Your task to perform on an android device: Do I have any events this weekend? Image 0: 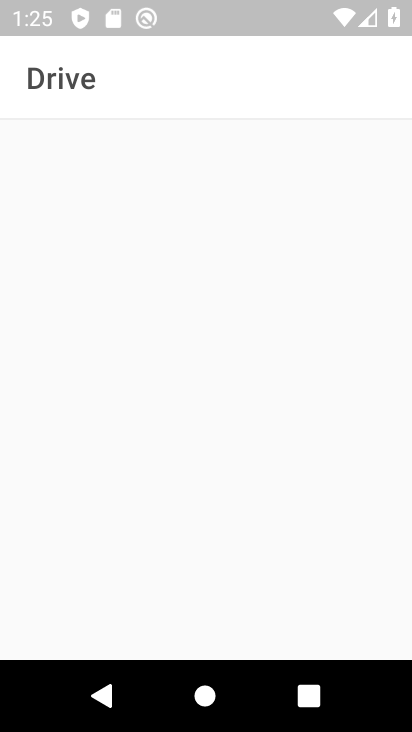
Step 0: press home button
Your task to perform on an android device: Do I have any events this weekend? Image 1: 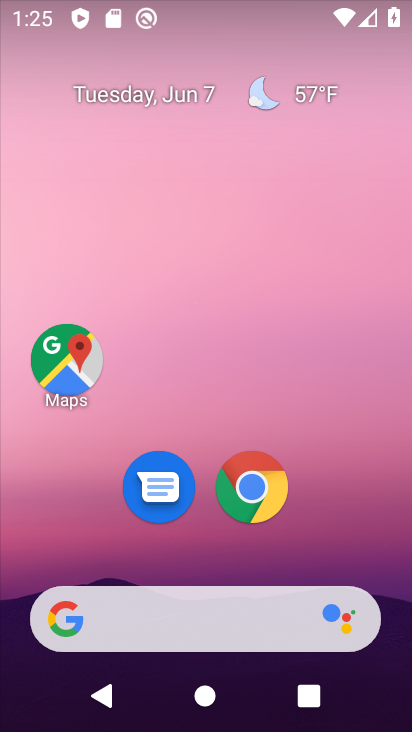
Step 1: drag from (342, 525) to (230, 99)
Your task to perform on an android device: Do I have any events this weekend? Image 2: 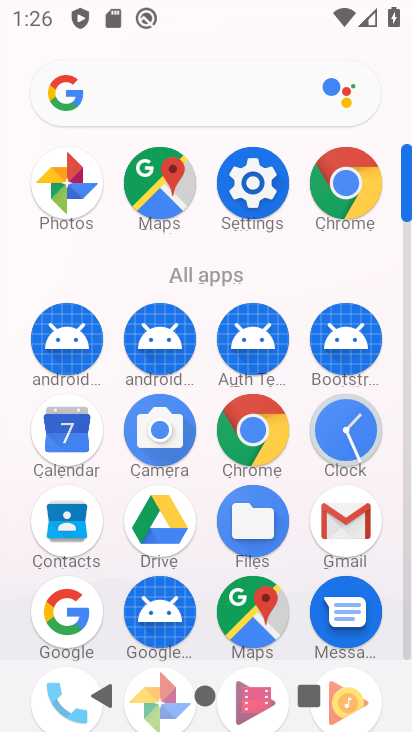
Step 2: click (67, 434)
Your task to perform on an android device: Do I have any events this weekend? Image 3: 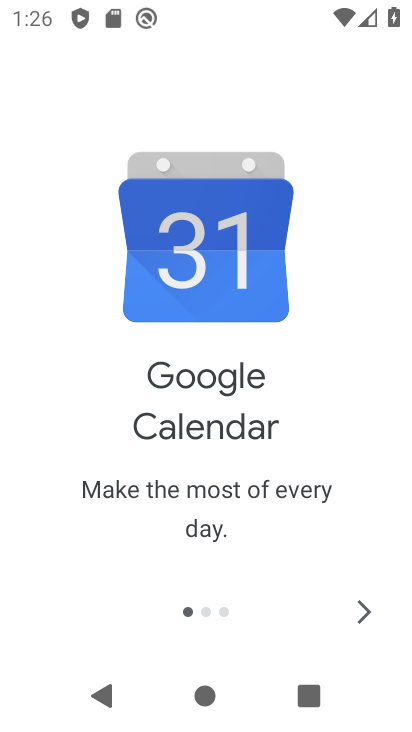
Step 3: click (368, 610)
Your task to perform on an android device: Do I have any events this weekend? Image 4: 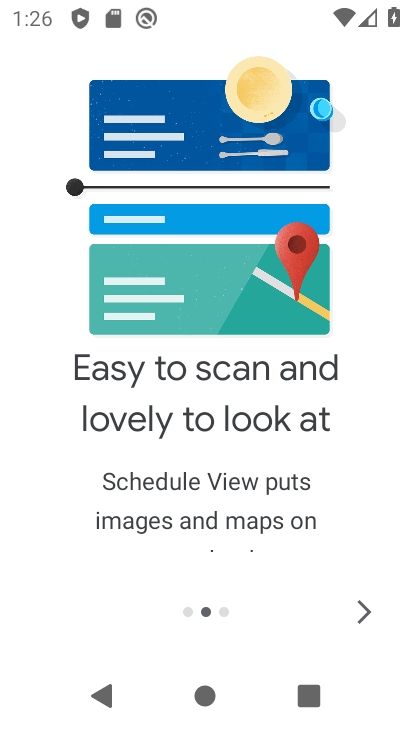
Step 4: click (368, 610)
Your task to perform on an android device: Do I have any events this weekend? Image 5: 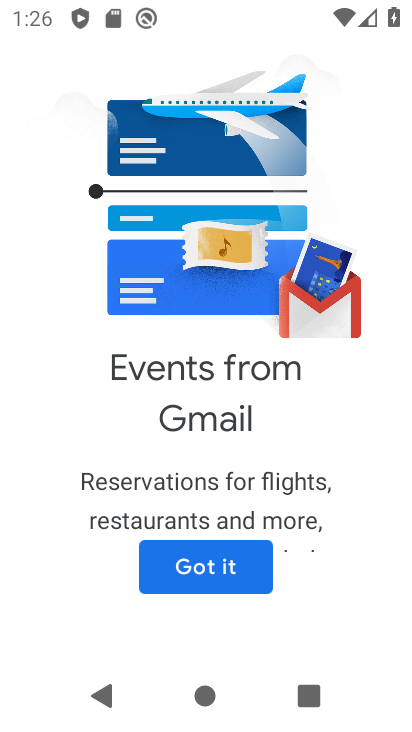
Step 5: click (213, 569)
Your task to perform on an android device: Do I have any events this weekend? Image 6: 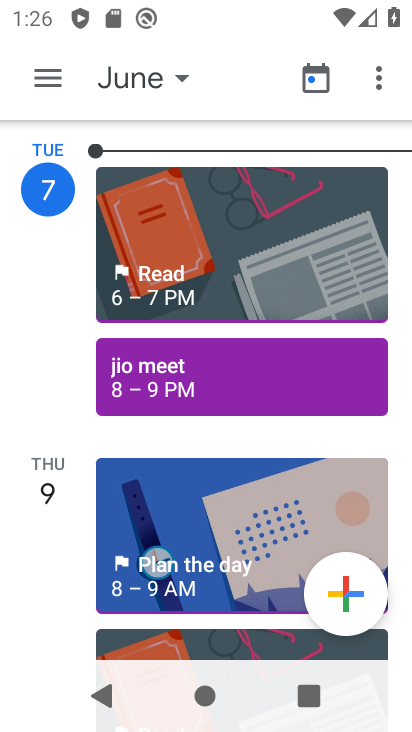
Step 6: click (180, 75)
Your task to perform on an android device: Do I have any events this weekend? Image 7: 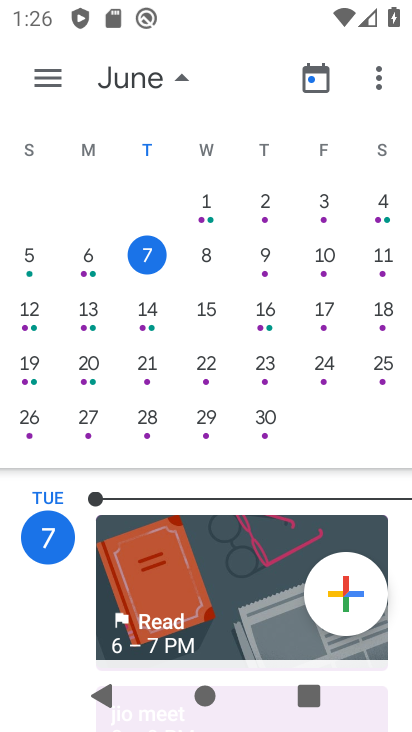
Step 7: click (381, 264)
Your task to perform on an android device: Do I have any events this weekend? Image 8: 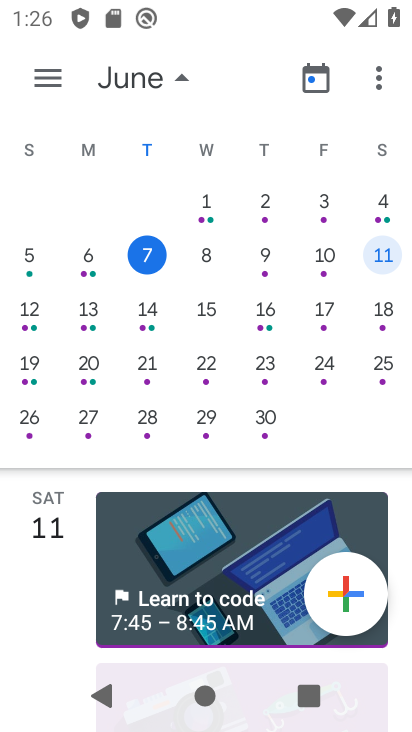
Step 8: click (45, 76)
Your task to perform on an android device: Do I have any events this weekend? Image 9: 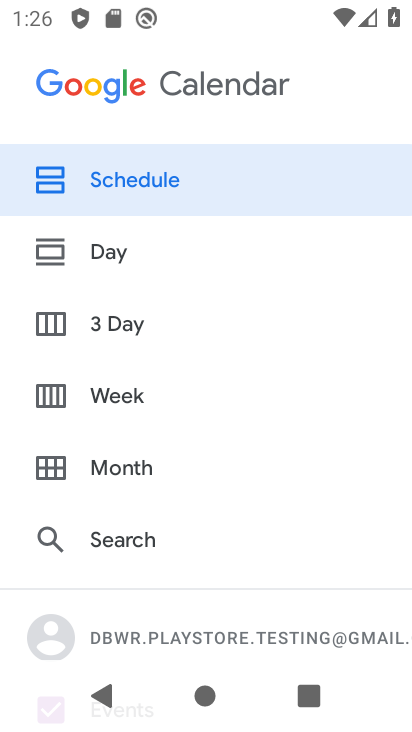
Step 9: click (120, 403)
Your task to perform on an android device: Do I have any events this weekend? Image 10: 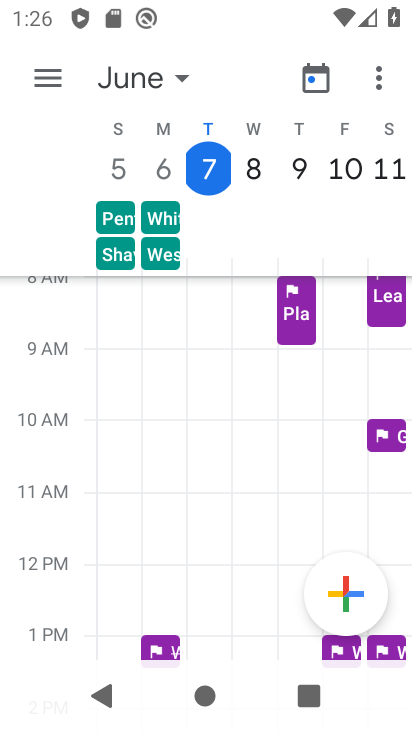
Step 10: task complete